Your task to perform on an android device: When is my next meeting? Image 0: 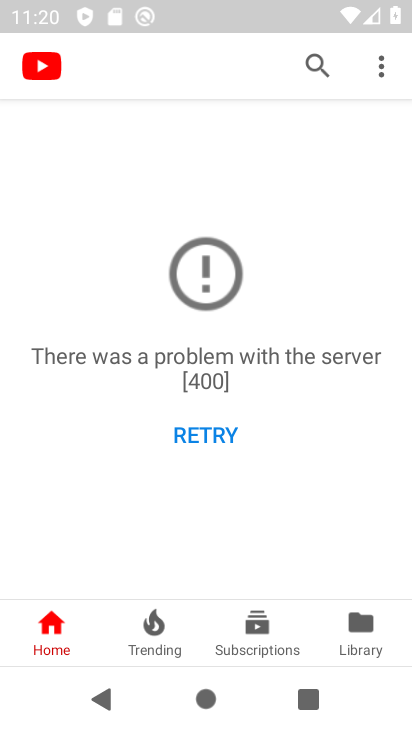
Step 0: press home button
Your task to perform on an android device: When is my next meeting? Image 1: 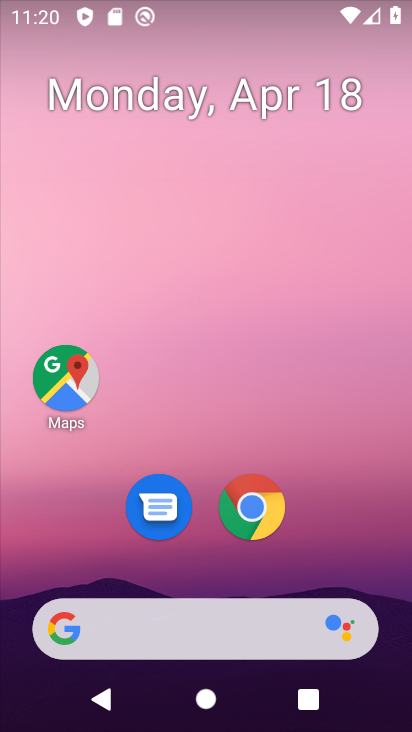
Step 1: drag from (326, 526) to (332, 93)
Your task to perform on an android device: When is my next meeting? Image 2: 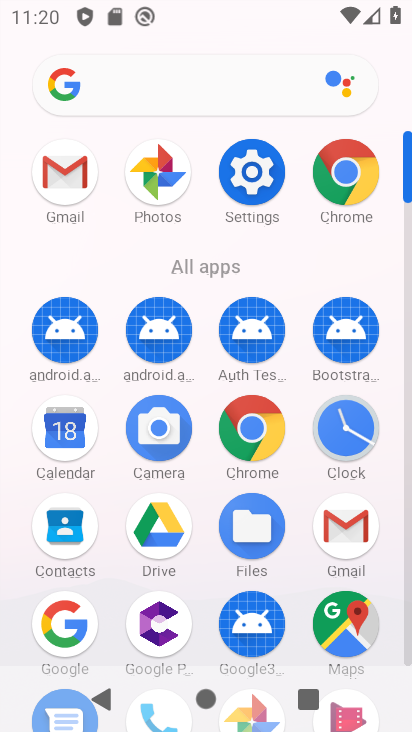
Step 2: click (71, 452)
Your task to perform on an android device: When is my next meeting? Image 3: 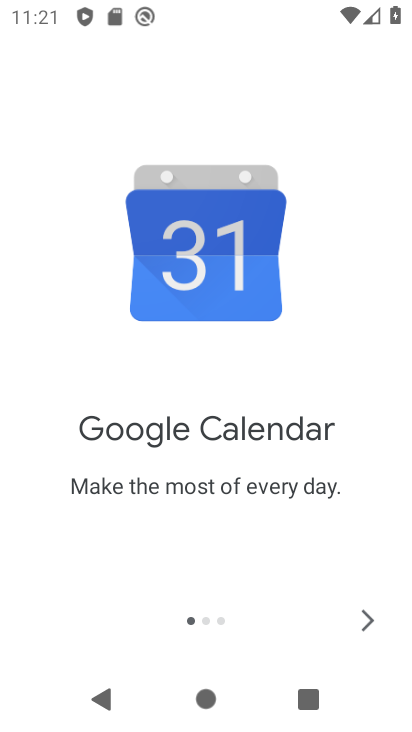
Step 3: click (361, 626)
Your task to perform on an android device: When is my next meeting? Image 4: 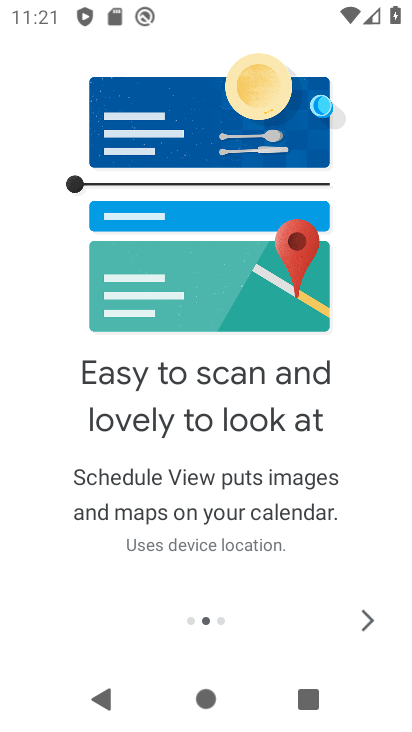
Step 4: click (361, 626)
Your task to perform on an android device: When is my next meeting? Image 5: 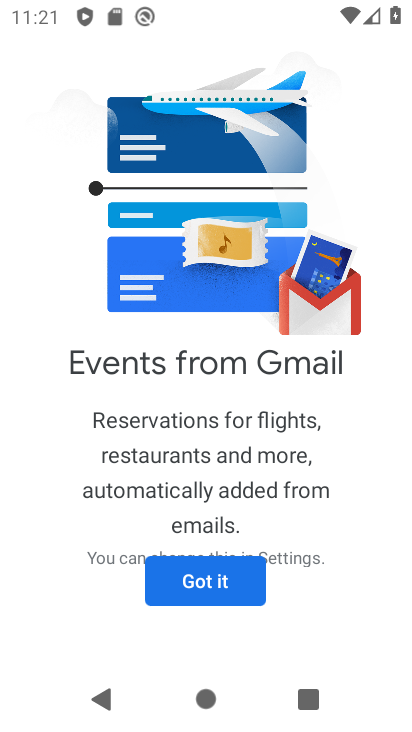
Step 5: click (218, 589)
Your task to perform on an android device: When is my next meeting? Image 6: 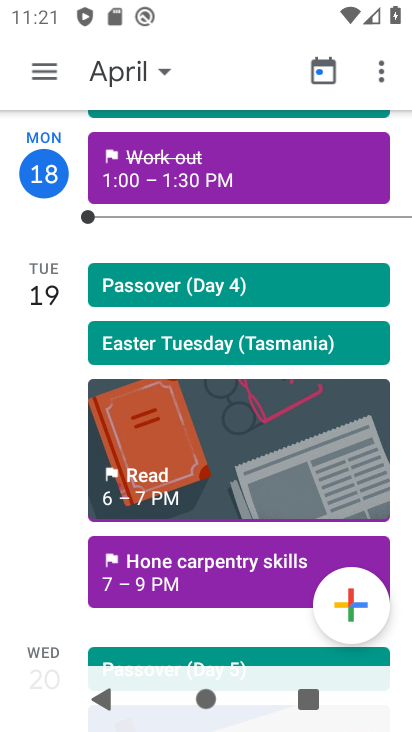
Step 6: task complete